Your task to perform on an android device: What's the time? Image 0: 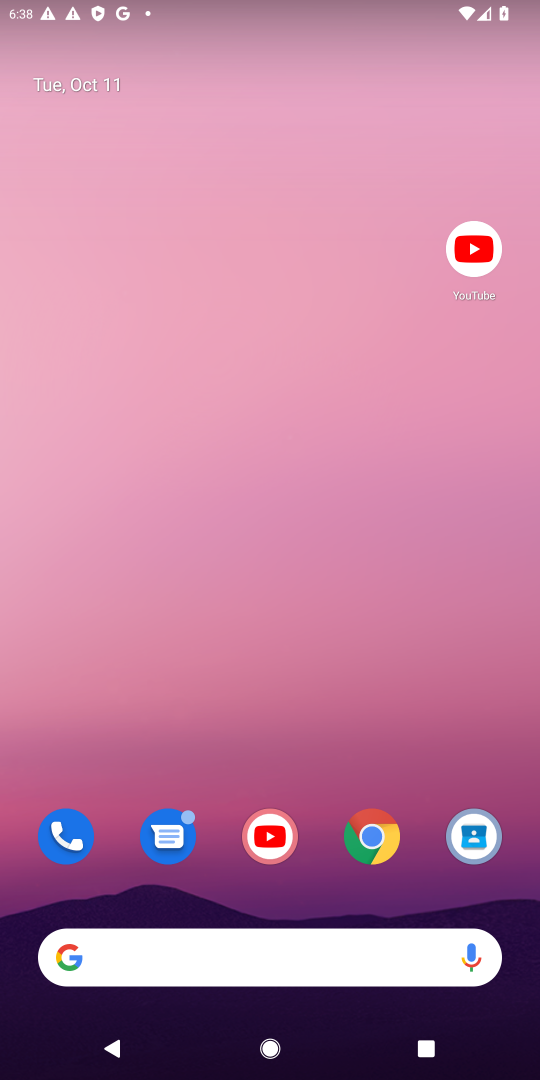
Step 0: click (367, 835)
Your task to perform on an android device: What's the time? Image 1: 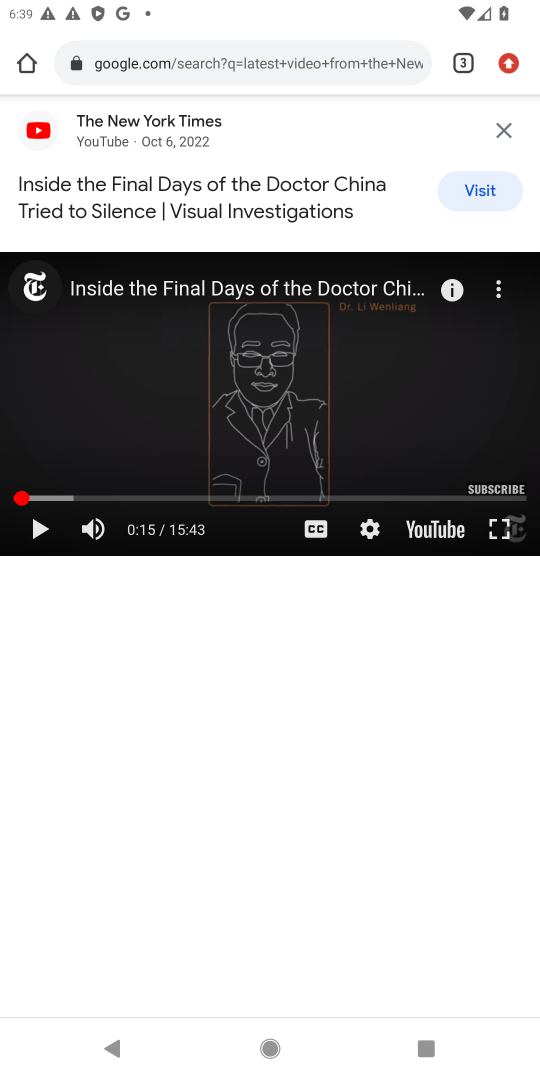
Step 1: click (214, 67)
Your task to perform on an android device: What's the time? Image 2: 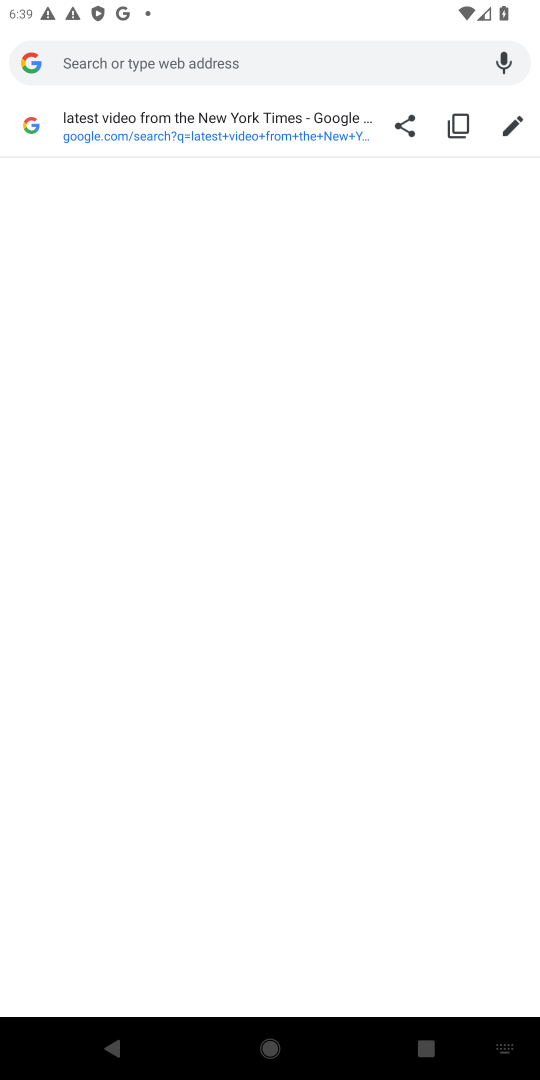
Step 2: type "What's the time"
Your task to perform on an android device: What's the time? Image 3: 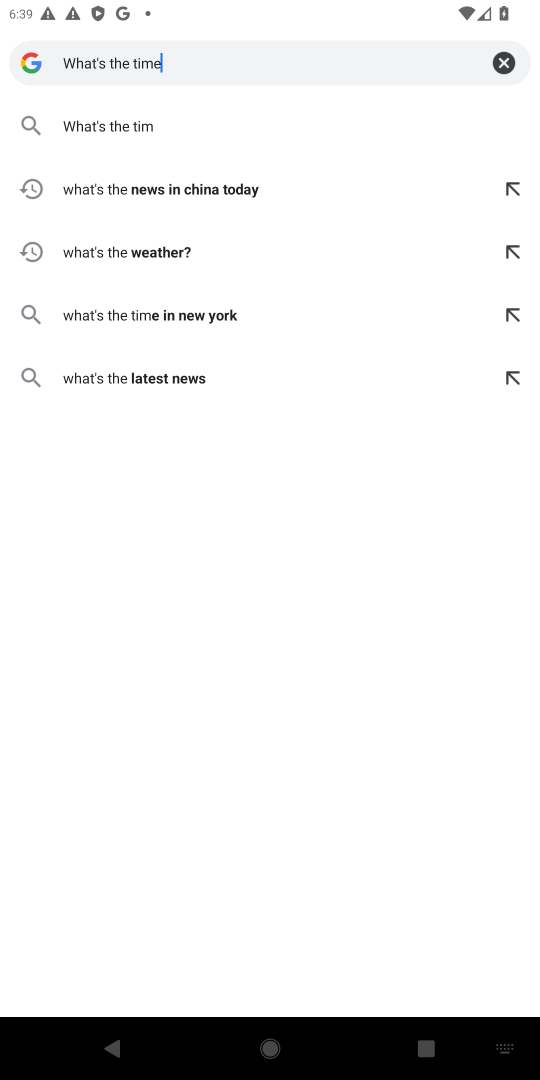
Step 3: press enter
Your task to perform on an android device: What's the time? Image 4: 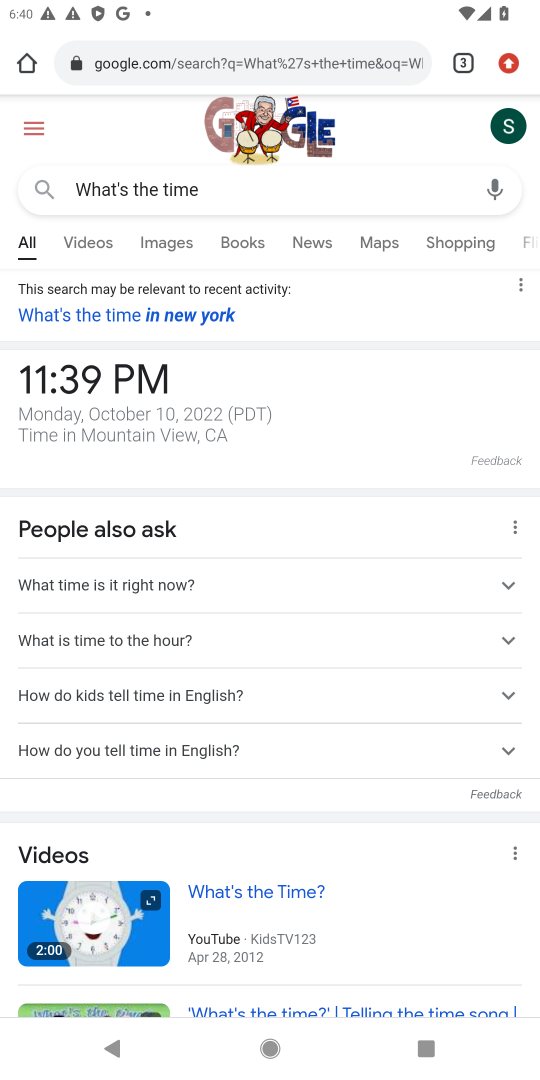
Step 4: task complete